Your task to perform on an android device: Search for Italian restaurants on Maps Image 0: 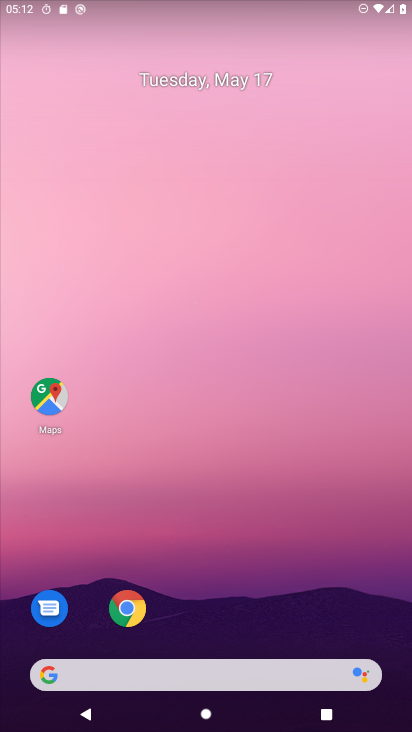
Step 0: click (38, 391)
Your task to perform on an android device: Search for Italian restaurants on Maps Image 1: 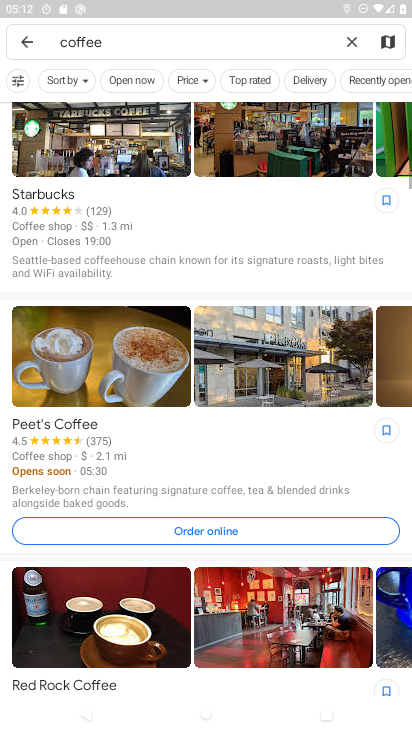
Step 1: click (351, 38)
Your task to perform on an android device: Search for Italian restaurants on Maps Image 2: 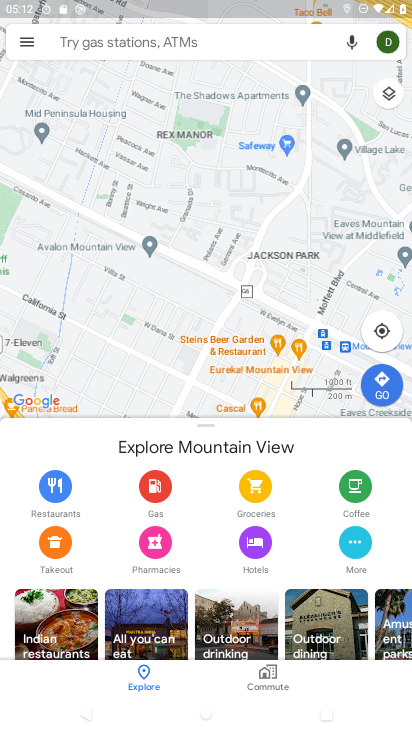
Step 2: click (134, 41)
Your task to perform on an android device: Search for Italian restaurants on Maps Image 3: 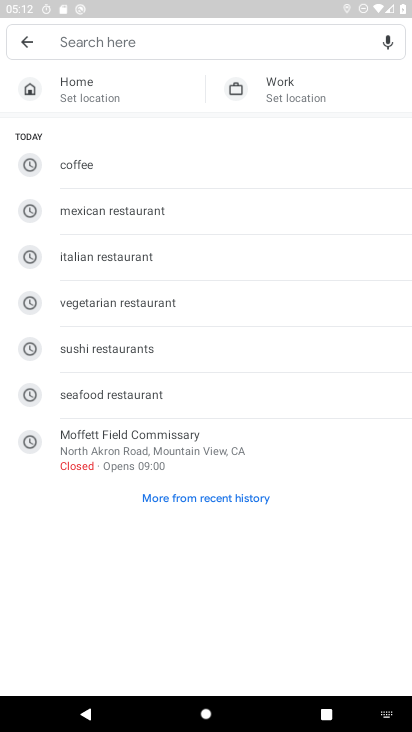
Step 3: click (136, 258)
Your task to perform on an android device: Search for Italian restaurants on Maps Image 4: 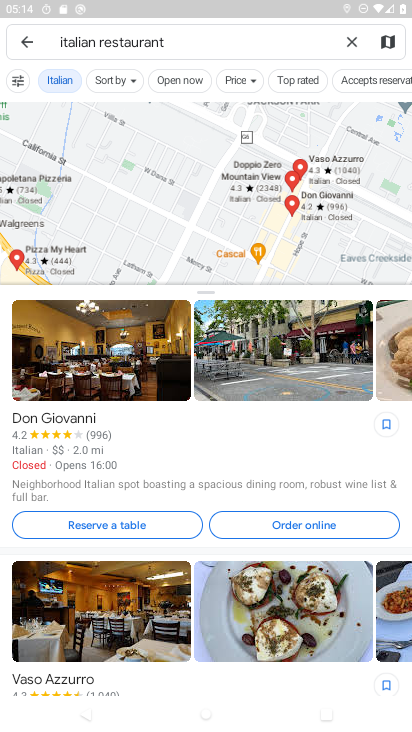
Step 4: task complete